Your task to perform on an android device: Open the calendar app, open the side menu, and click the "Day" option Image 0: 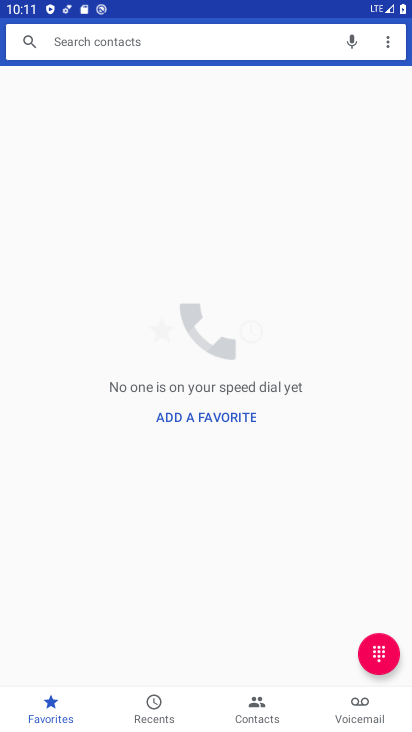
Step 0: press home button
Your task to perform on an android device: Open the calendar app, open the side menu, and click the "Day" option Image 1: 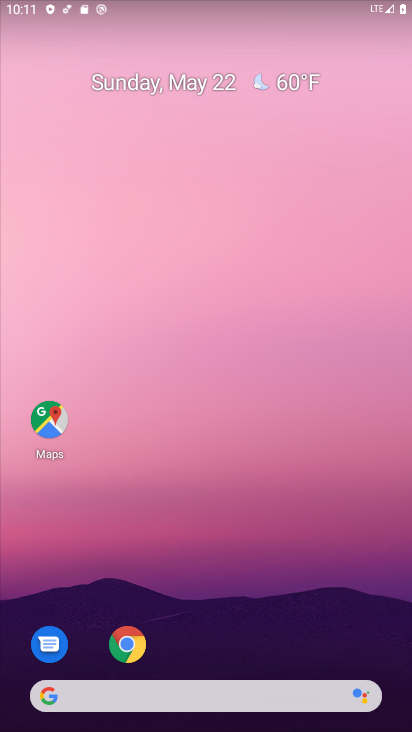
Step 1: drag from (150, 669) to (170, 321)
Your task to perform on an android device: Open the calendar app, open the side menu, and click the "Day" option Image 2: 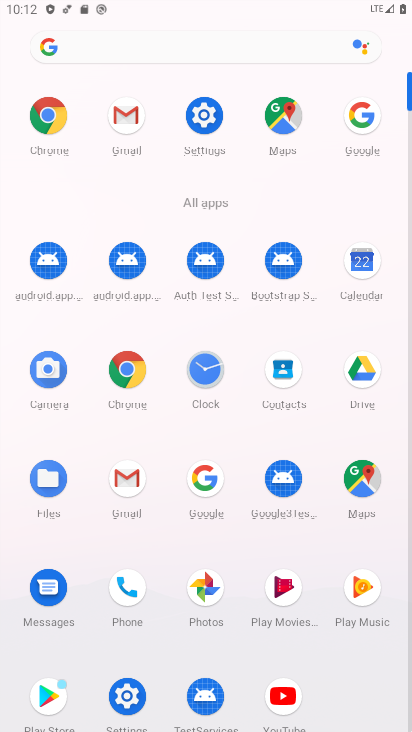
Step 2: click (361, 270)
Your task to perform on an android device: Open the calendar app, open the side menu, and click the "Day" option Image 3: 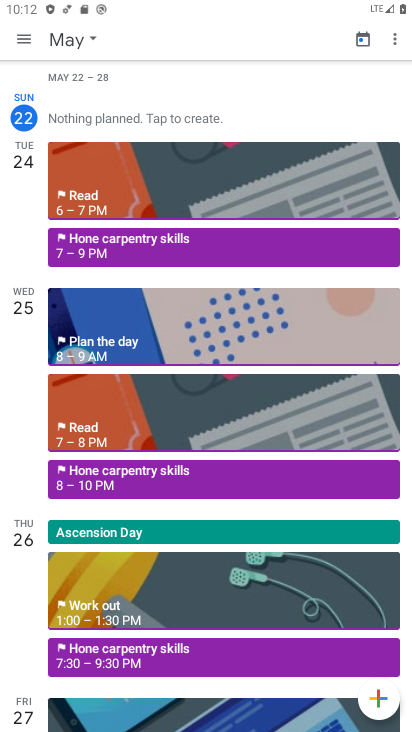
Step 3: click (16, 34)
Your task to perform on an android device: Open the calendar app, open the side menu, and click the "Day" option Image 4: 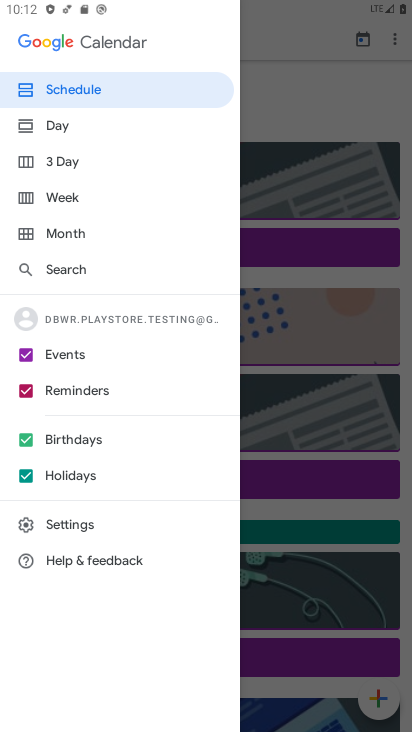
Step 4: click (60, 126)
Your task to perform on an android device: Open the calendar app, open the side menu, and click the "Day" option Image 5: 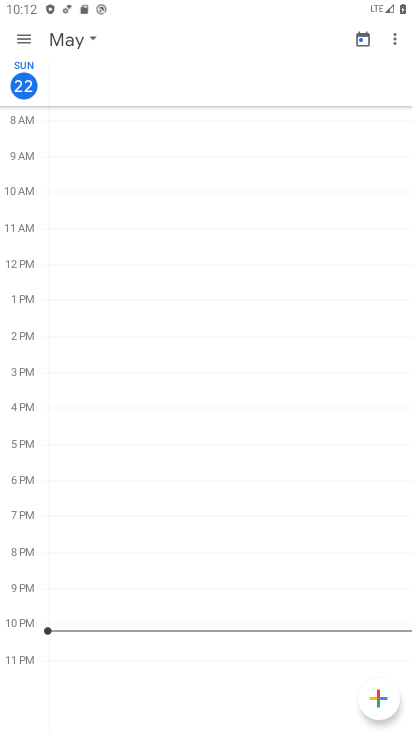
Step 5: task complete